Your task to perform on an android device: Open the web browser Image 0: 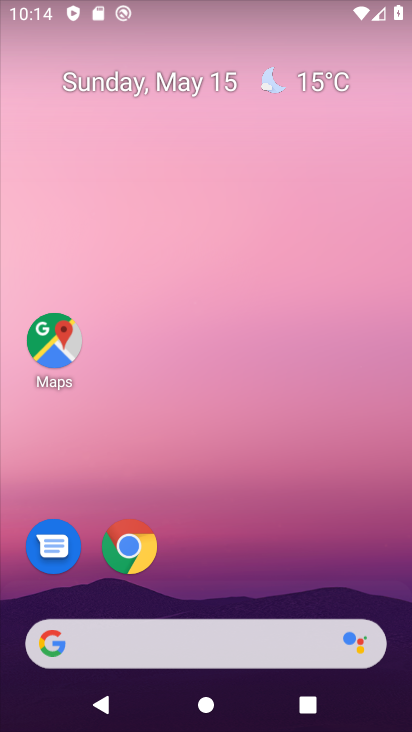
Step 0: click (135, 544)
Your task to perform on an android device: Open the web browser Image 1: 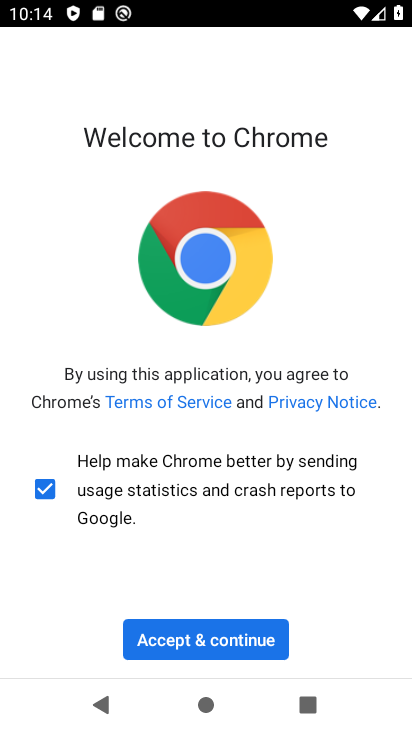
Step 1: task complete